Your task to perform on an android device: Open maps Image 0: 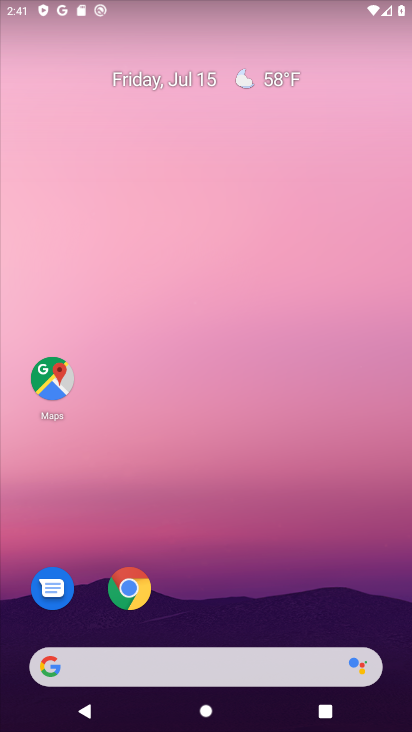
Step 0: drag from (244, 594) to (207, 35)
Your task to perform on an android device: Open maps Image 1: 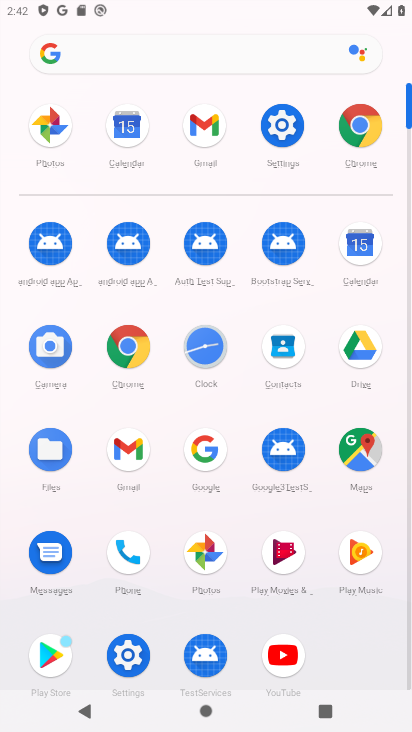
Step 1: drag from (267, 406) to (151, 462)
Your task to perform on an android device: Open maps Image 2: 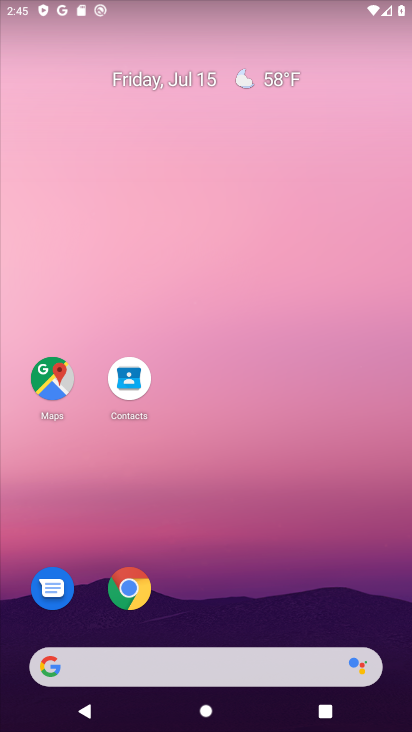
Step 2: click (52, 357)
Your task to perform on an android device: Open maps Image 3: 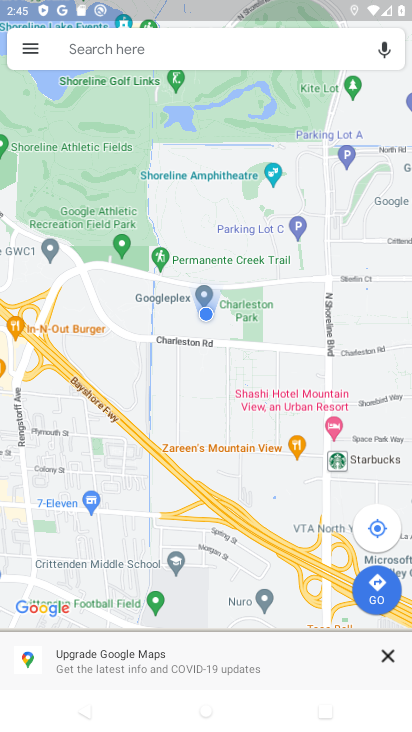
Step 3: task complete